Your task to perform on an android device: Add rayovac triple a to the cart on newegg.com, then select checkout. Image 0: 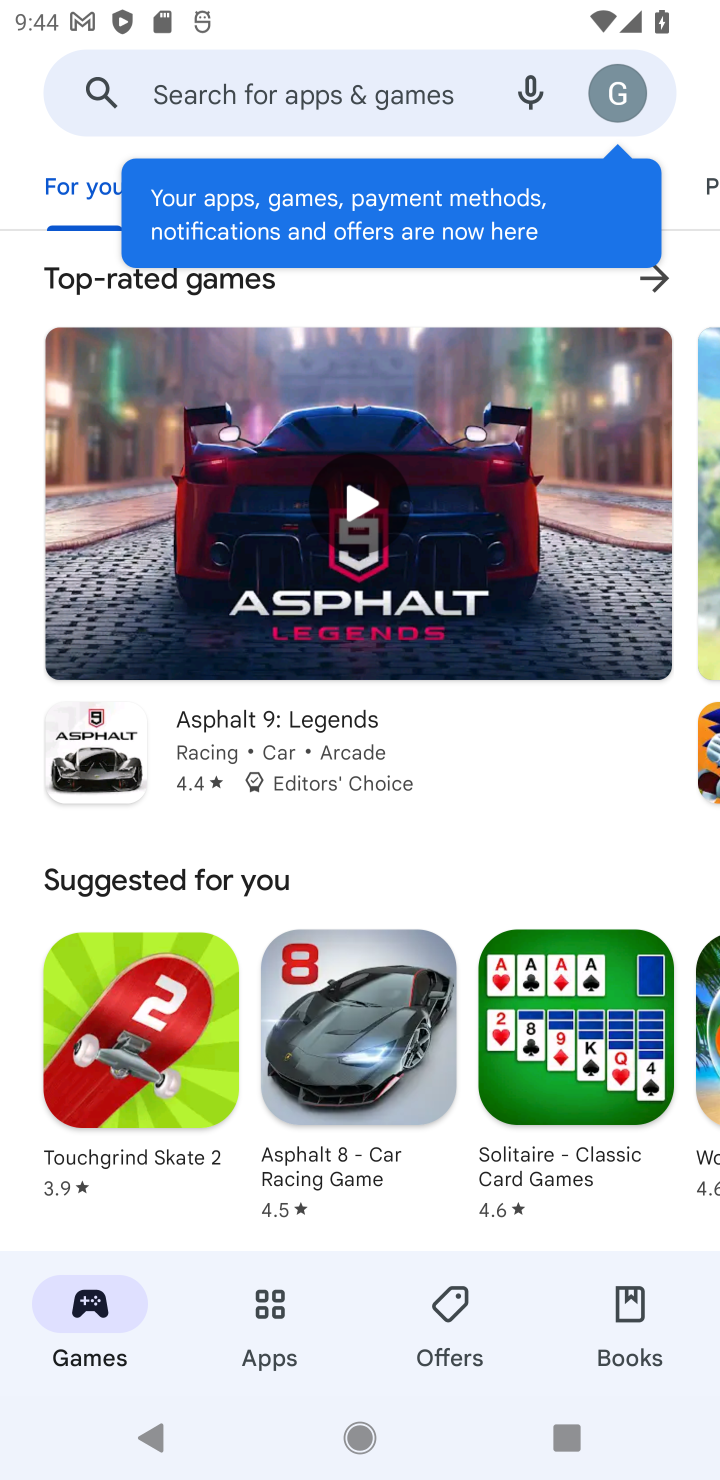
Step 0: press home button
Your task to perform on an android device: Add rayovac triple a to the cart on newegg.com, then select checkout. Image 1: 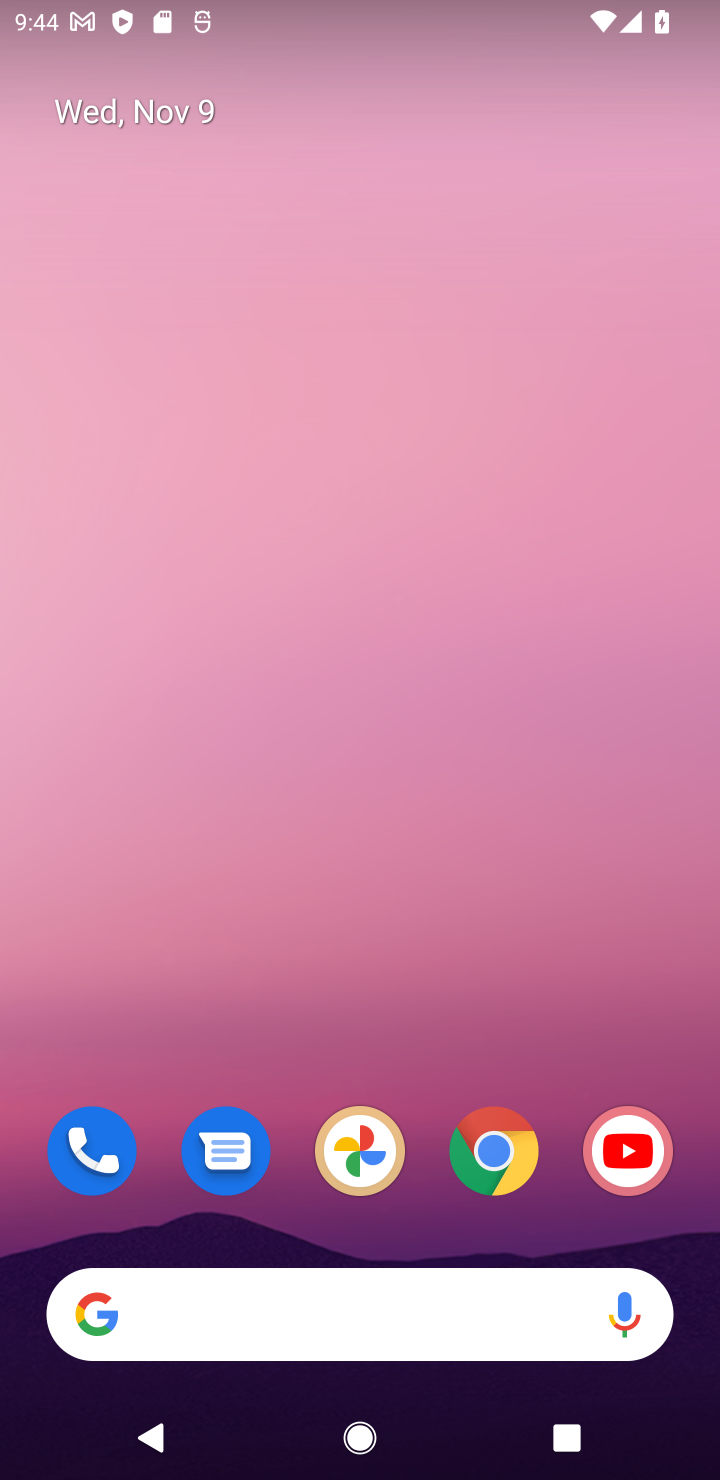
Step 1: click (517, 1146)
Your task to perform on an android device: Add rayovac triple a to the cart on newegg.com, then select checkout. Image 2: 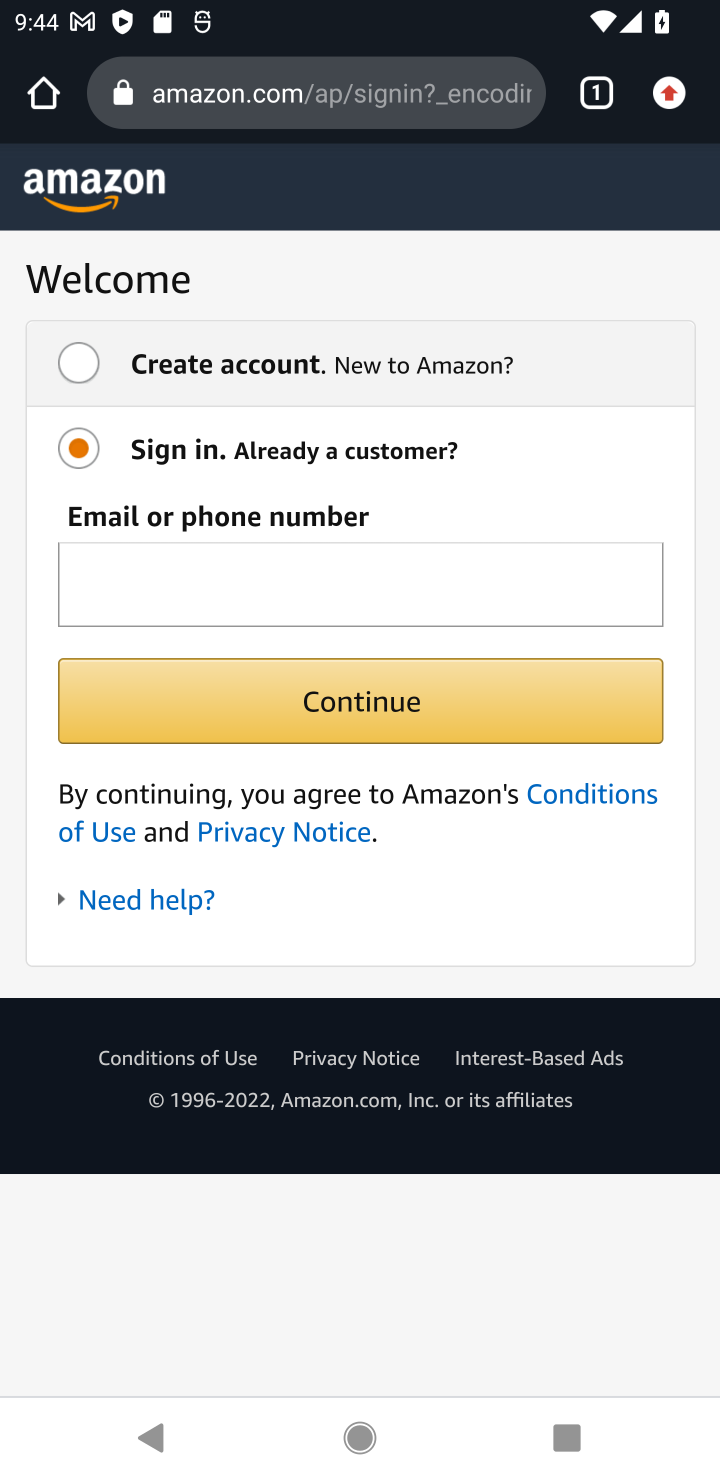
Step 2: click (418, 80)
Your task to perform on an android device: Add rayovac triple a to the cart on newegg.com, then select checkout. Image 3: 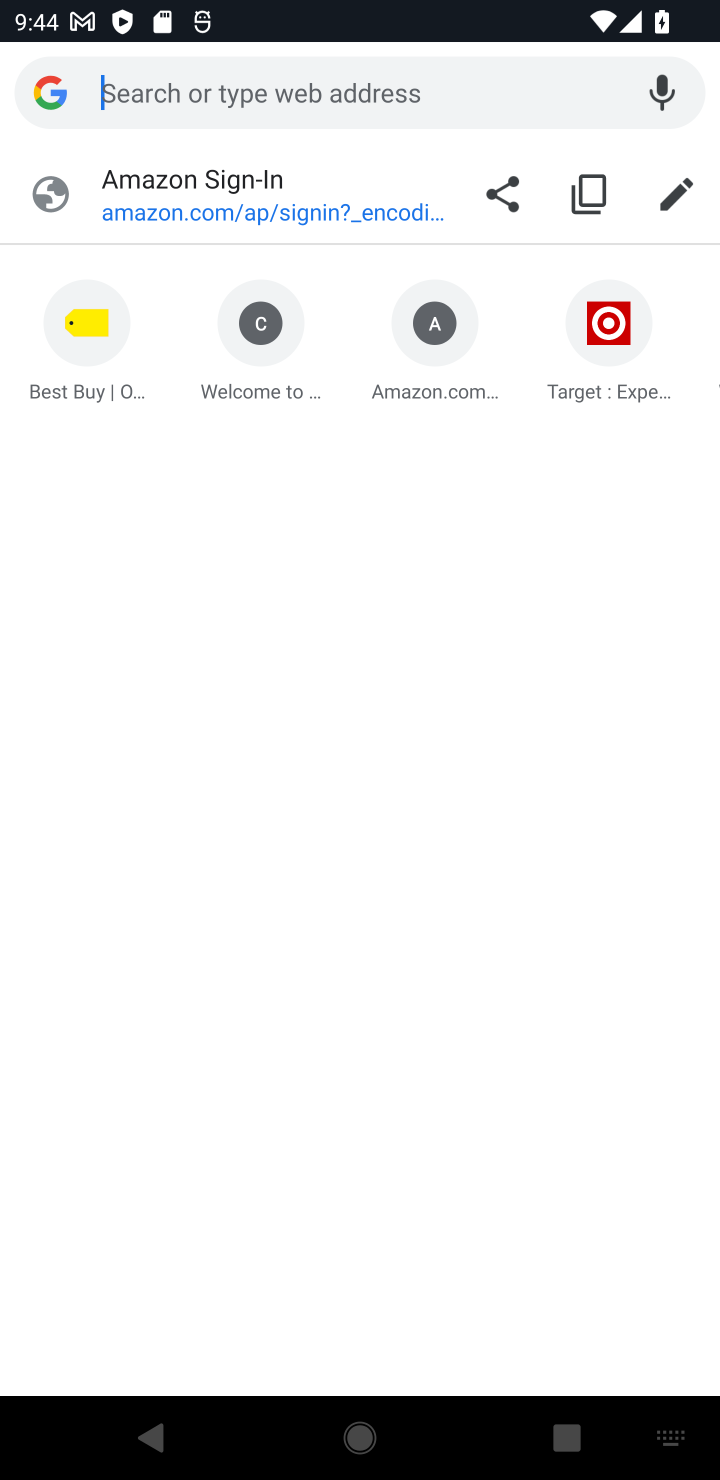
Step 3: type "newegg.com"
Your task to perform on an android device: Add rayovac triple a to the cart on newegg.com, then select checkout. Image 4: 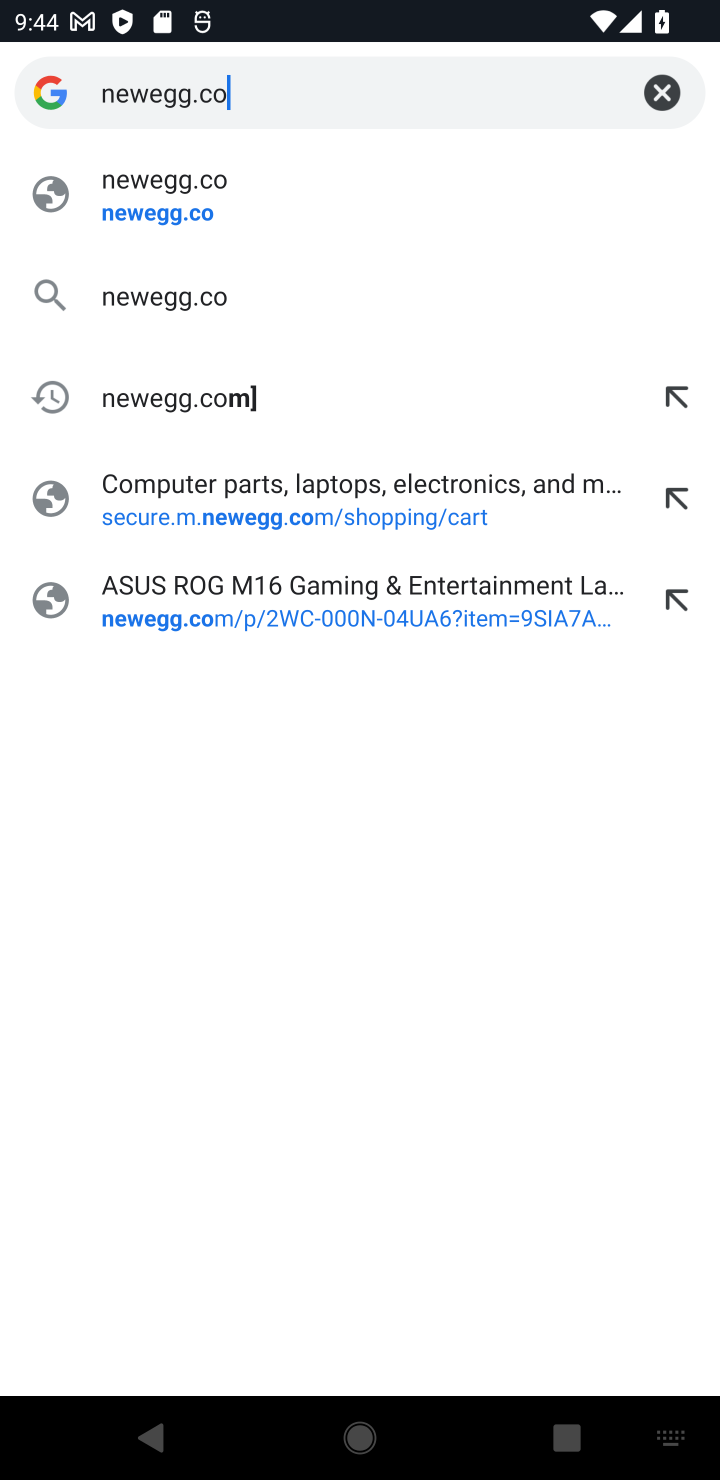
Step 4: press enter
Your task to perform on an android device: Add rayovac triple a to the cart on newegg.com, then select checkout. Image 5: 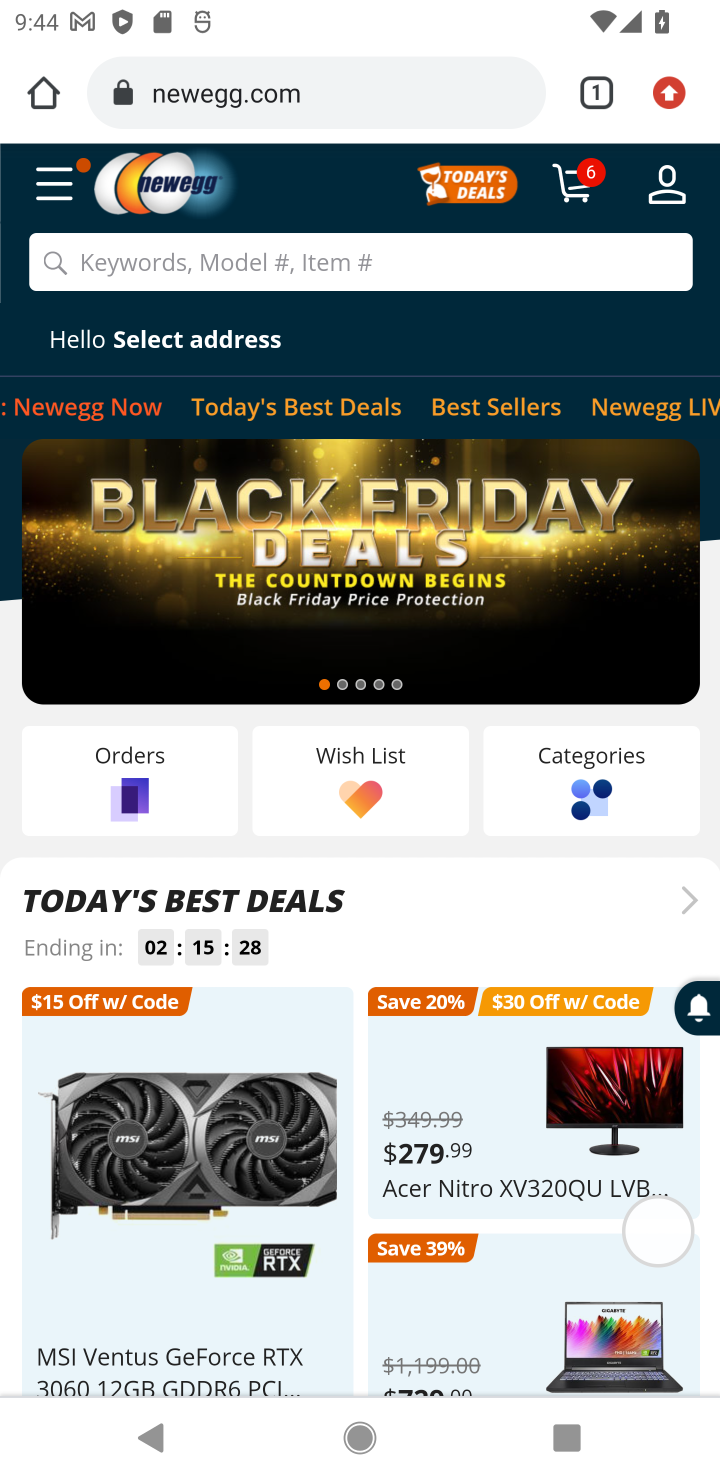
Step 5: click (378, 264)
Your task to perform on an android device: Add rayovac triple a to the cart on newegg.com, then select checkout. Image 6: 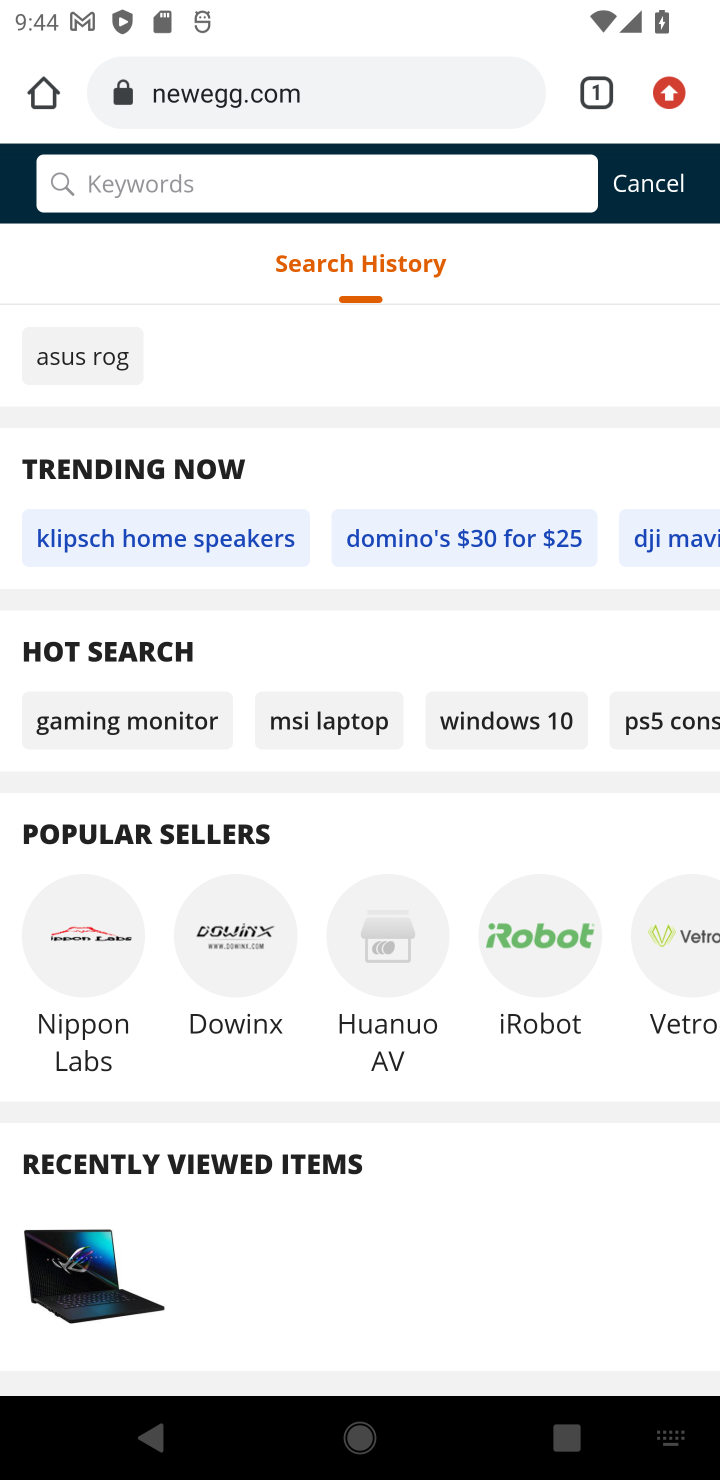
Step 6: type "rayovac triple a"
Your task to perform on an android device: Add rayovac triple a to the cart on newegg.com, then select checkout. Image 7: 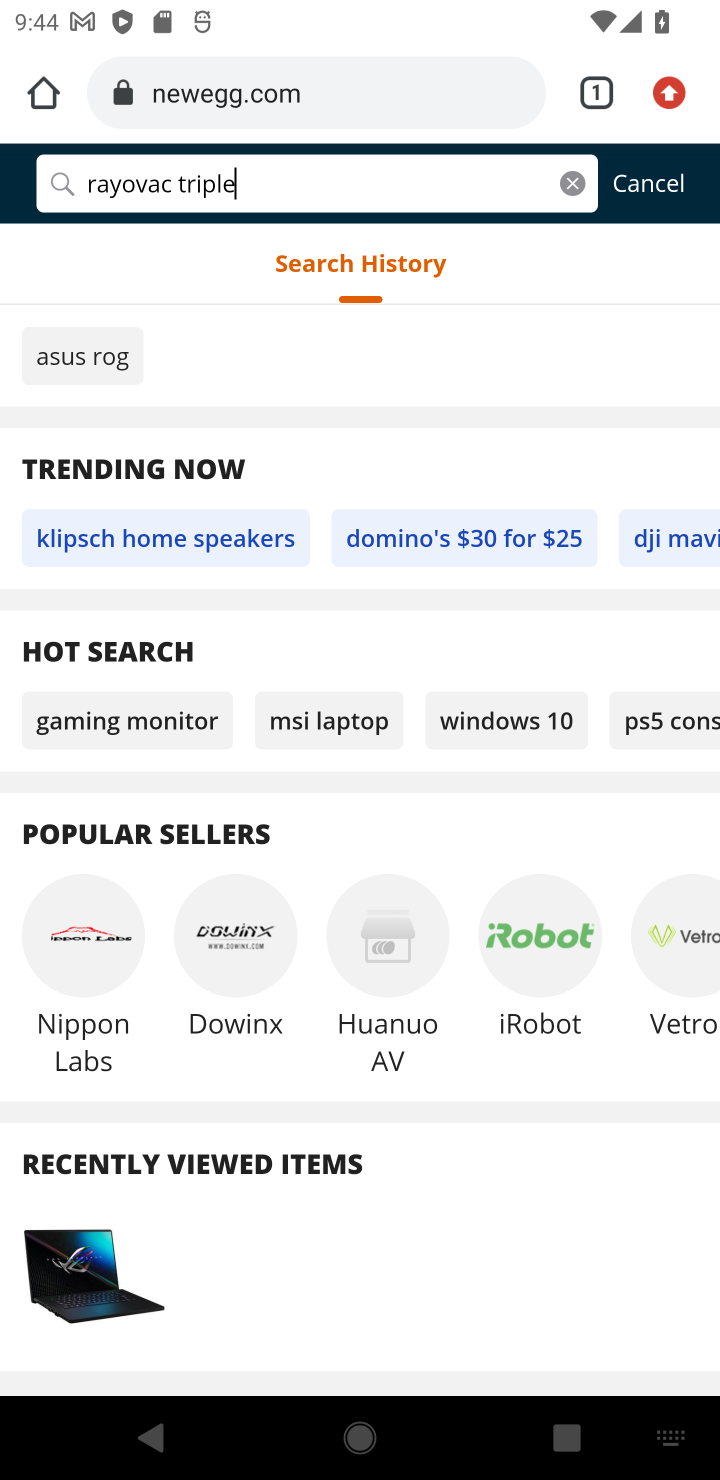
Step 7: press enter
Your task to perform on an android device: Add rayovac triple a to the cart on newegg.com, then select checkout. Image 8: 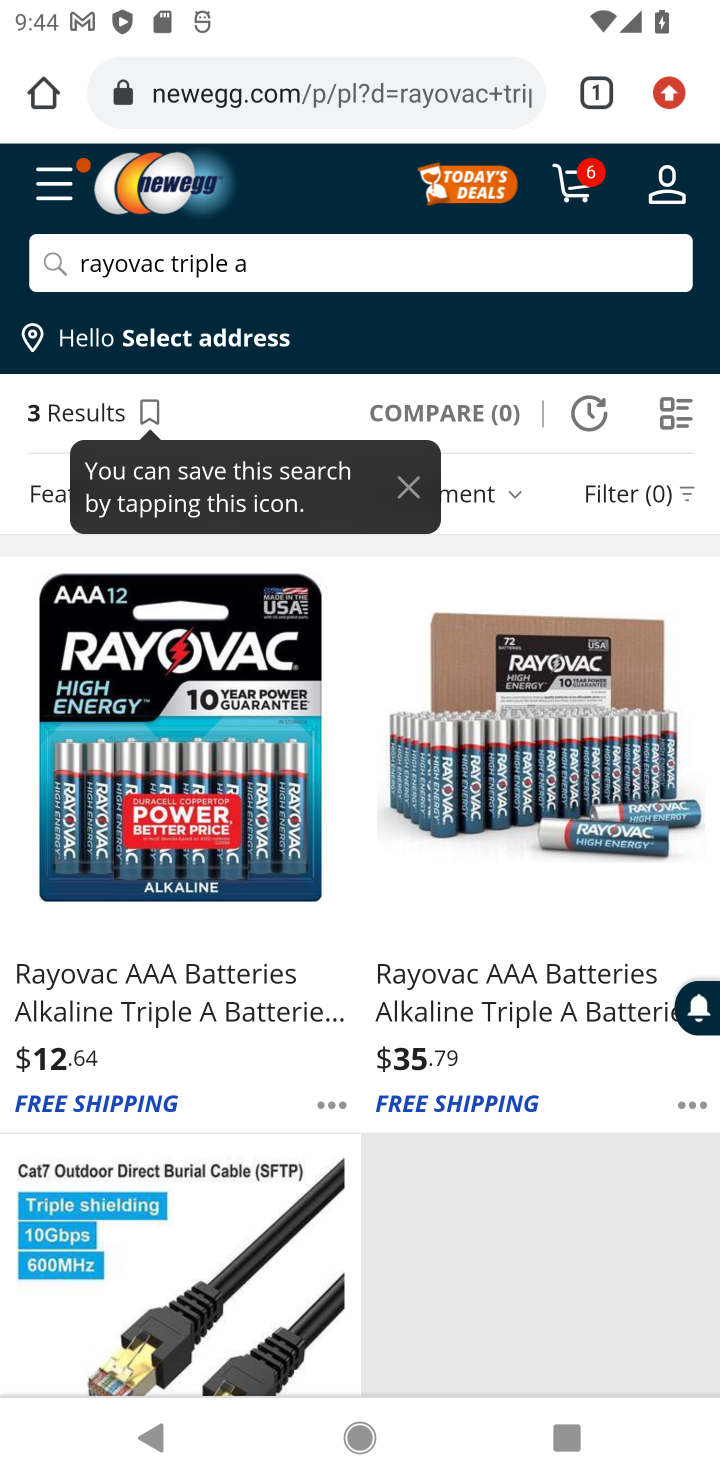
Step 8: click (188, 801)
Your task to perform on an android device: Add rayovac triple a to the cart on newegg.com, then select checkout. Image 9: 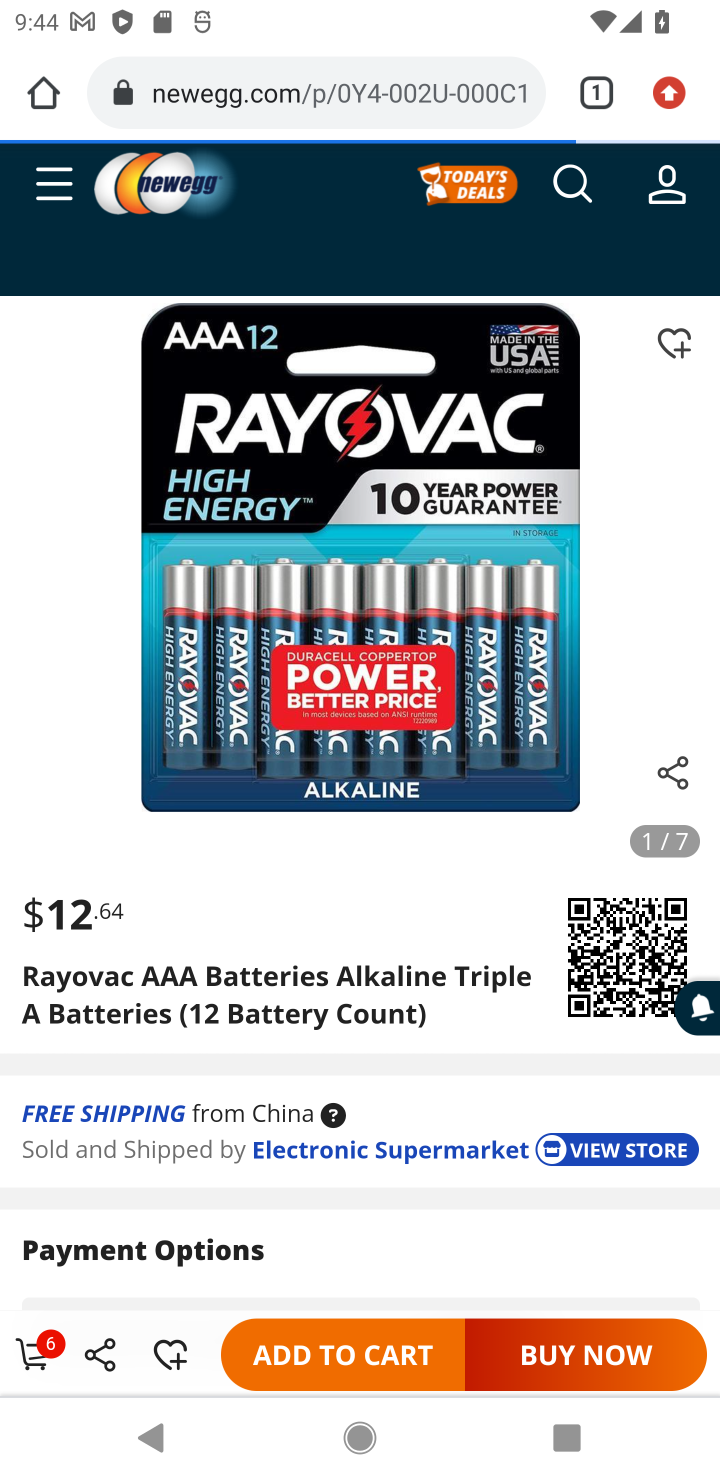
Step 9: drag from (342, 991) to (351, 842)
Your task to perform on an android device: Add rayovac triple a to the cart on newegg.com, then select checkout. Image 10: 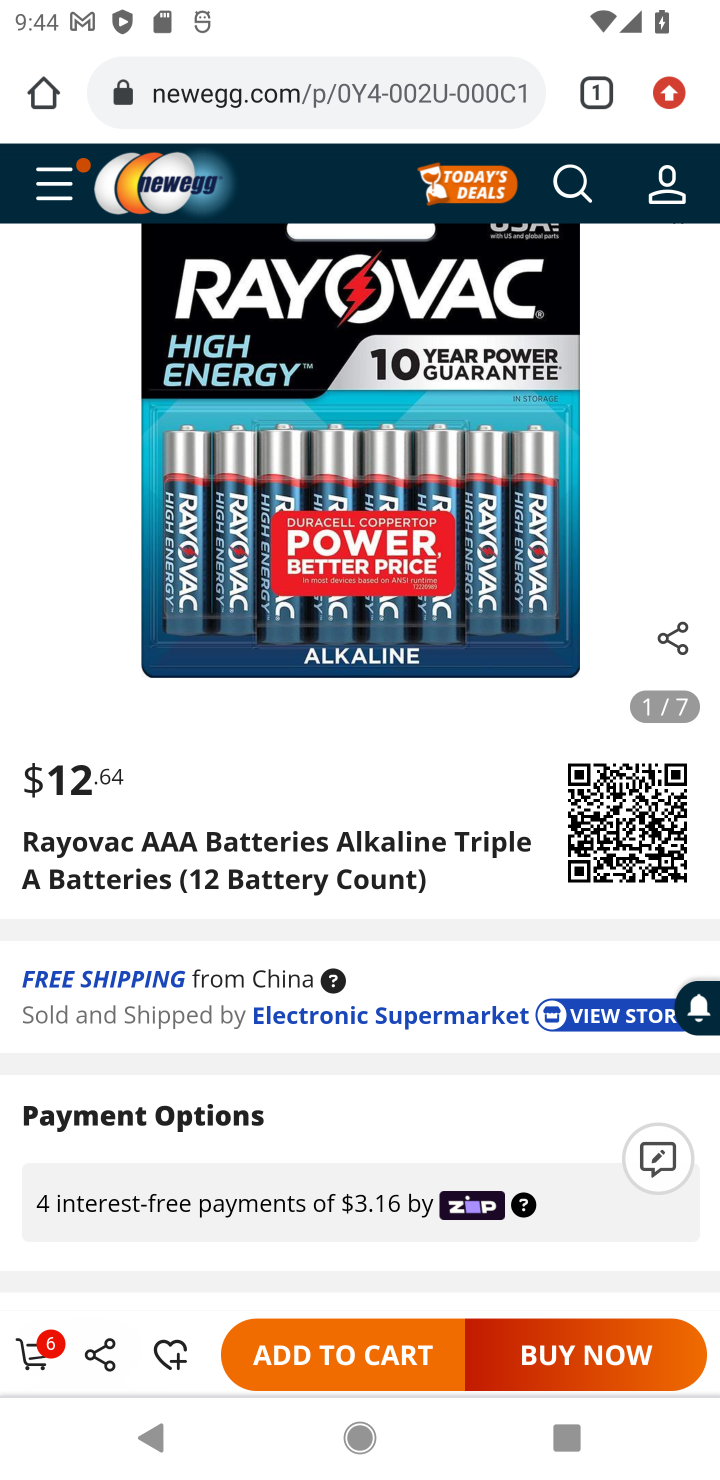
Step 10: click (356, 1346)
Your task to perform on an android device: Add rayovac triple a to the cart on newegg.com, then select checkout. Image 11: 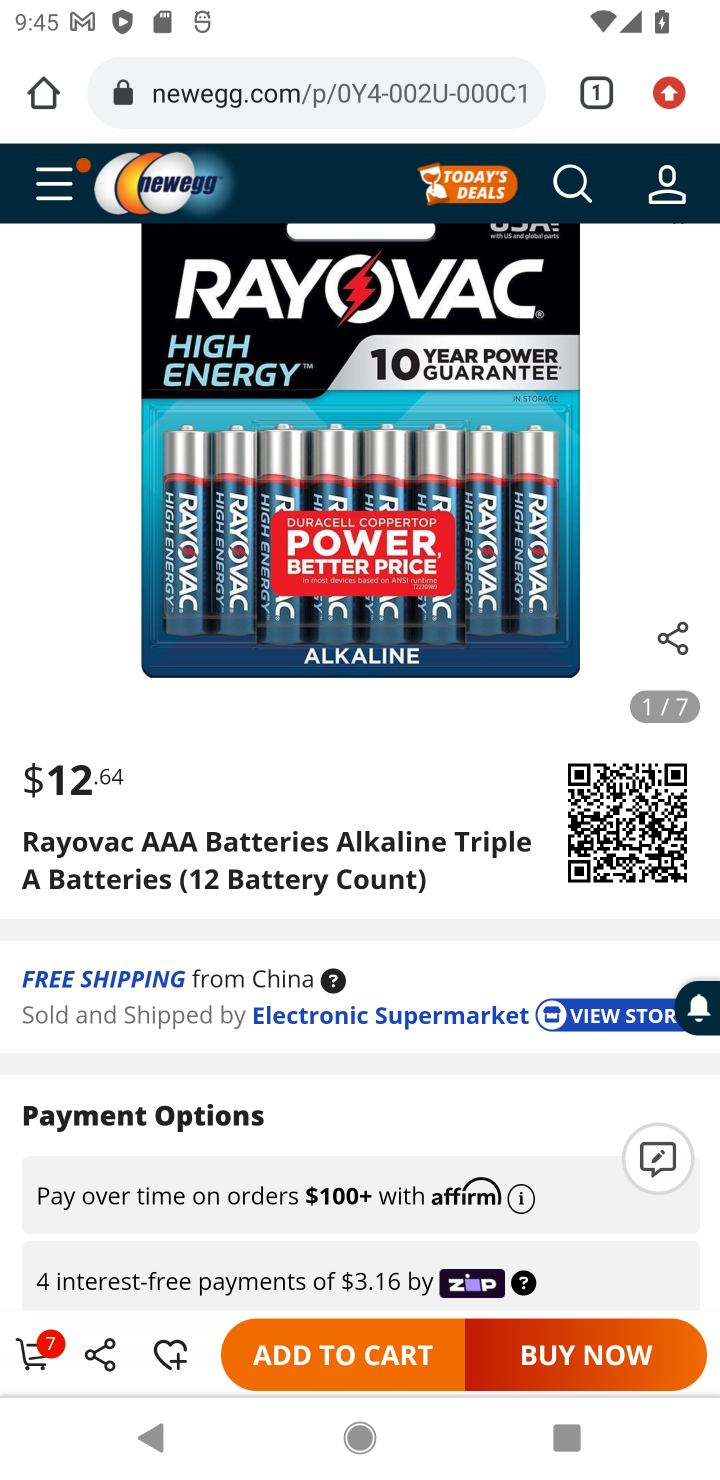
Step 11: click (38, 1362)
Your task to perform on an android device: Add rayovac triple a to the cart on newegg.com, then select checkout. Image 12: 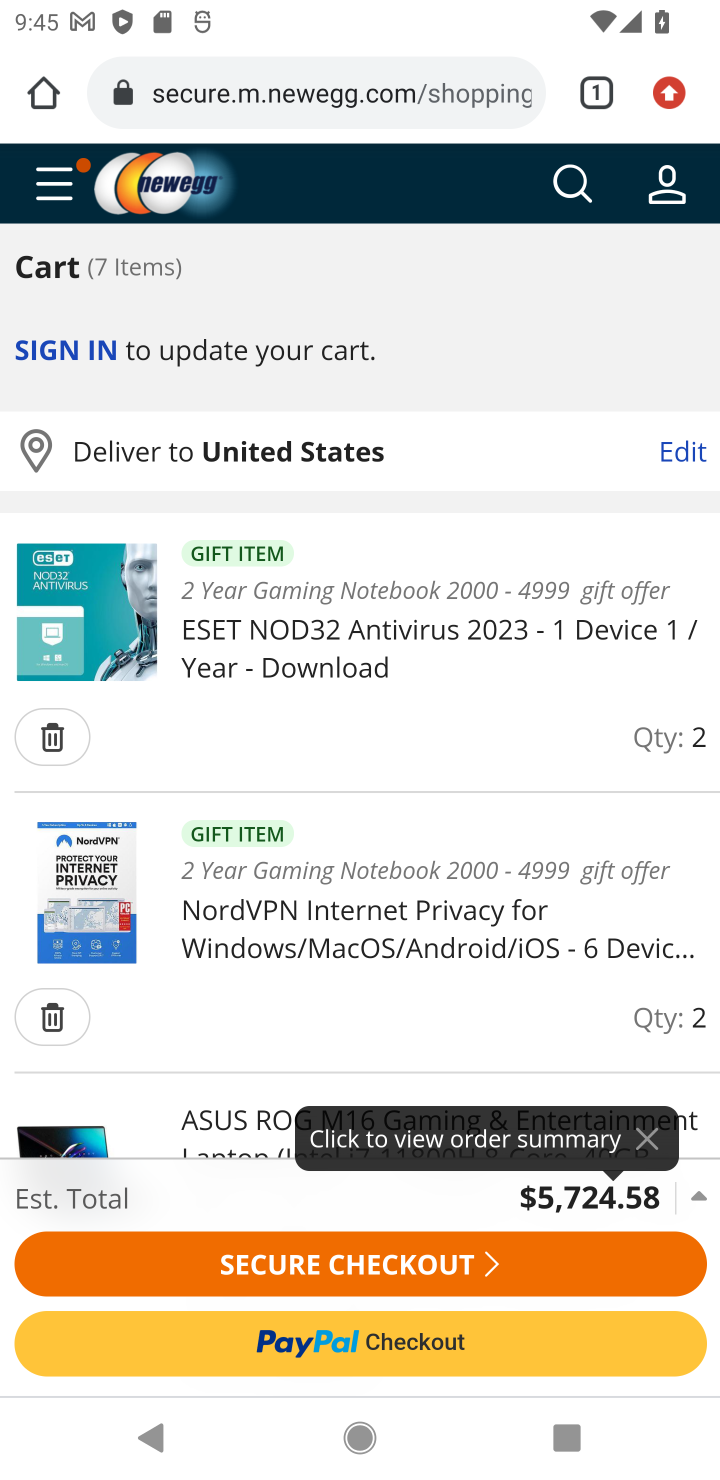
Step 12: click (404, 1262)
Your task to perform on an android device: Add rayovac triple a to the cart on newegg.com, then select checkout. Image 13: 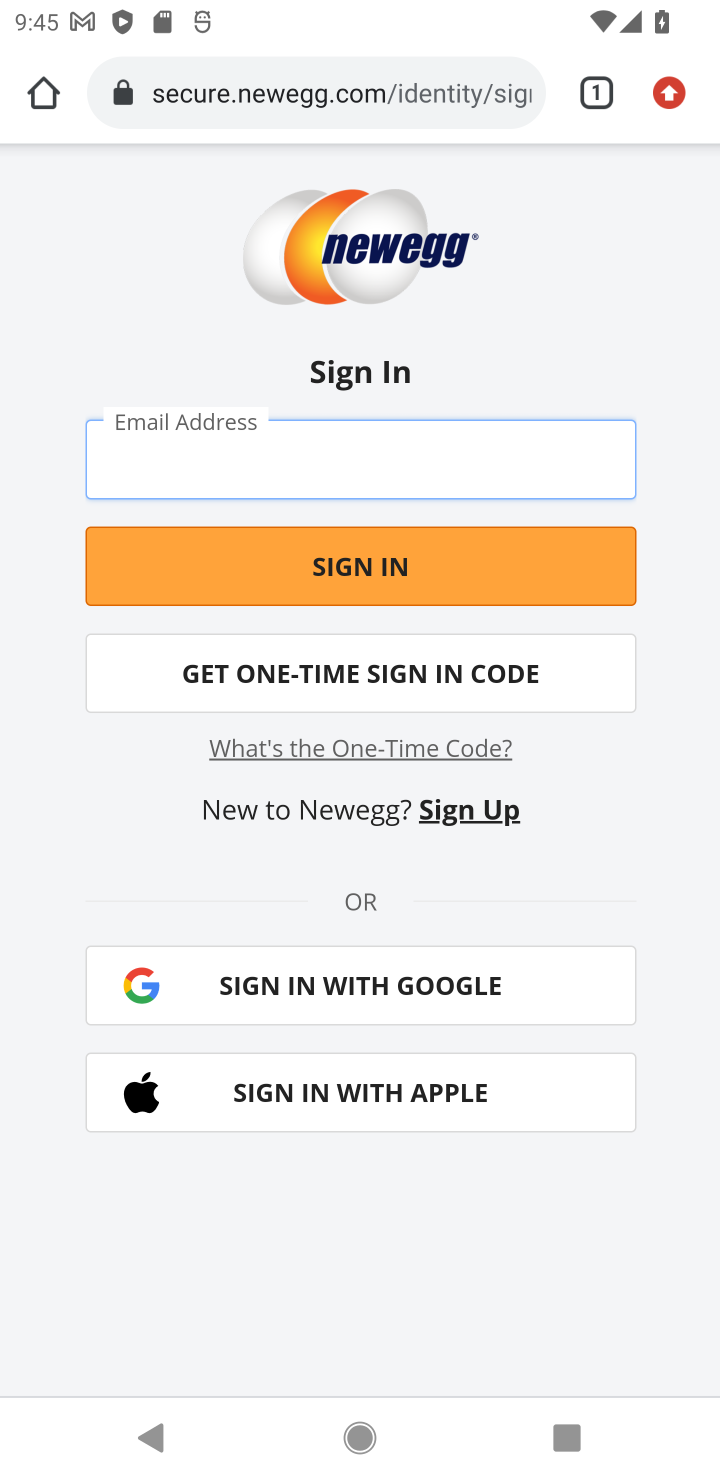
Step 13: task complete